Your task to perform on an android device: Clear the cart on bestbuy.com. Add "usb-c to usb-a" to the cart on bestbuy.com, then select checkout. Image 0: 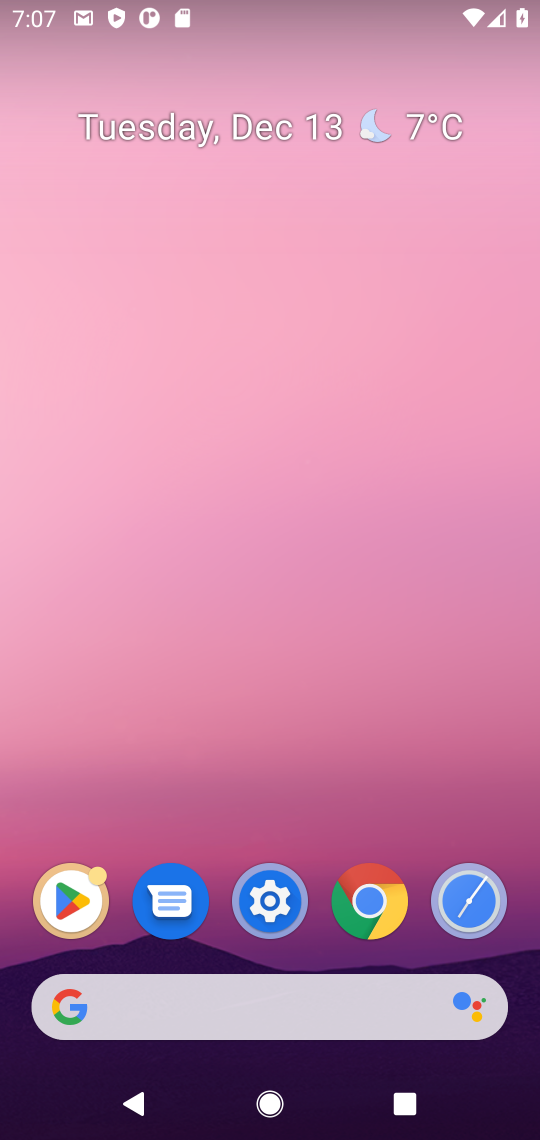
Step 0: click (386, 917)
Your task to perform on an android device: Clear the cart on bestbuy.com. Add "usb-c to usb-a" to the cart on bestbuy.com, then select checkout. Image 1: 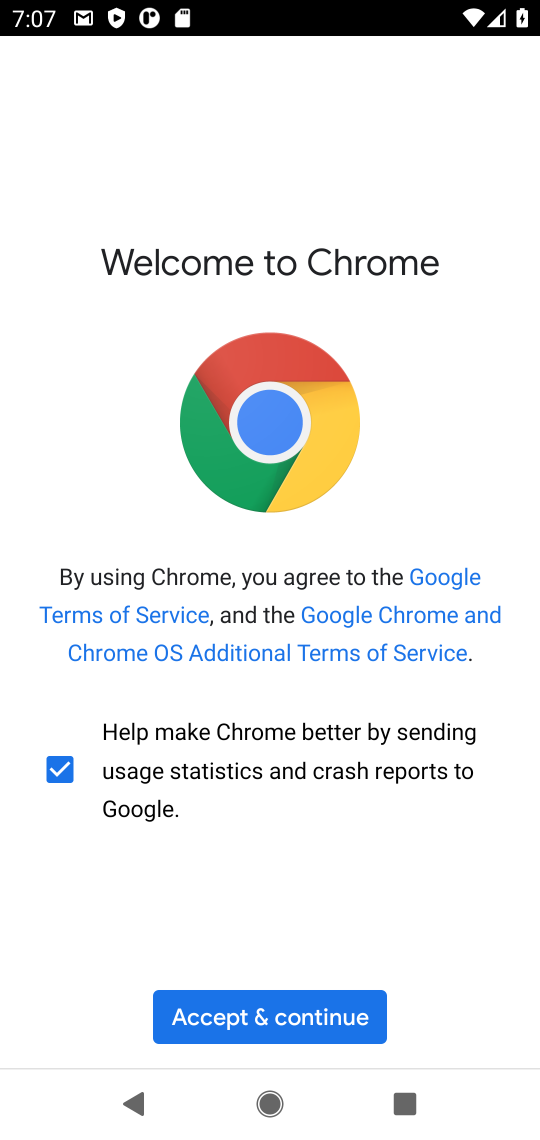
Step 1: click (245, 1004)
Your task to perform on an android device: Clear the cart on bestbuy.com. Add "usb-c to usb-a" to the cart on bestbuy.com, then select checkout. Image 2: 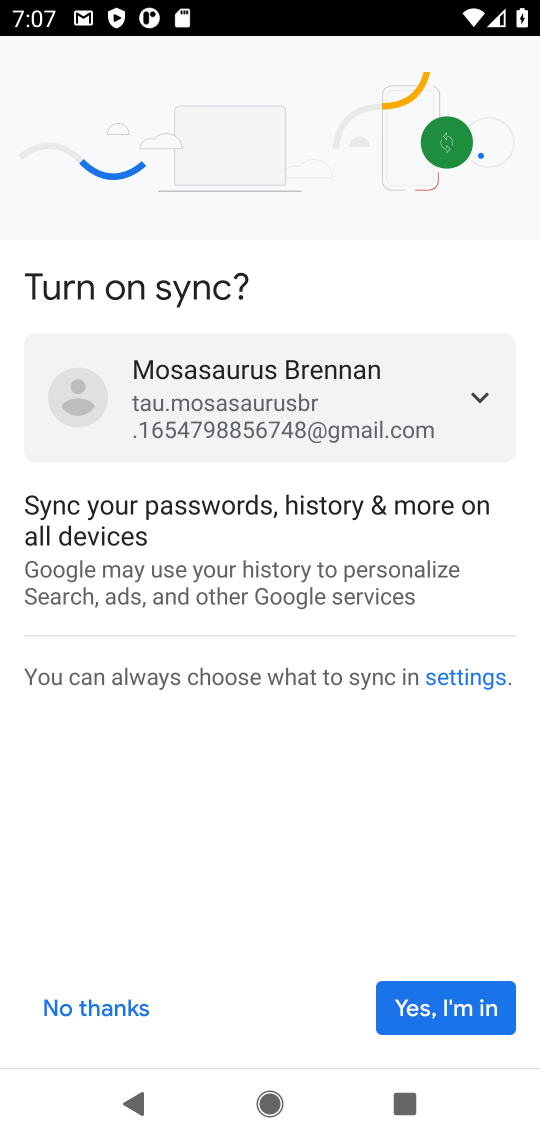
Step 2: click (399, 1003)
Your task to perform on an android device: Clear the cart on bestbuy.com. Add "usb-c to usb-a" to the cart on bestbuy.com, then select checkout. Image 3: 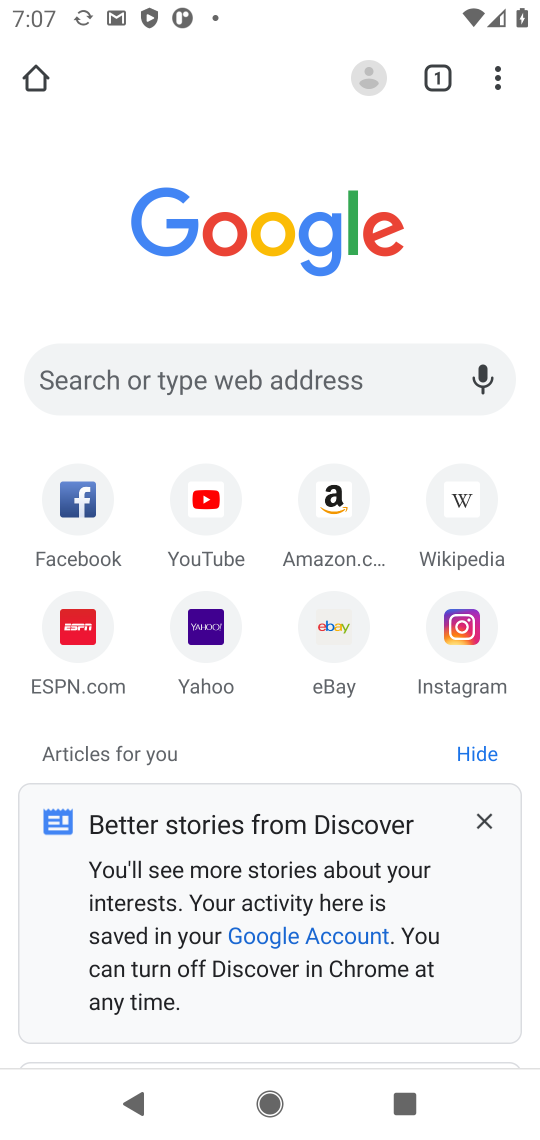
Step 3: click (295, 368)
Your task to perform on an android device: Clear the cart on bestbuy.com. Add "usb-c to usb-a" to the cart on bestbuy.com, then select checkout. Image 4: 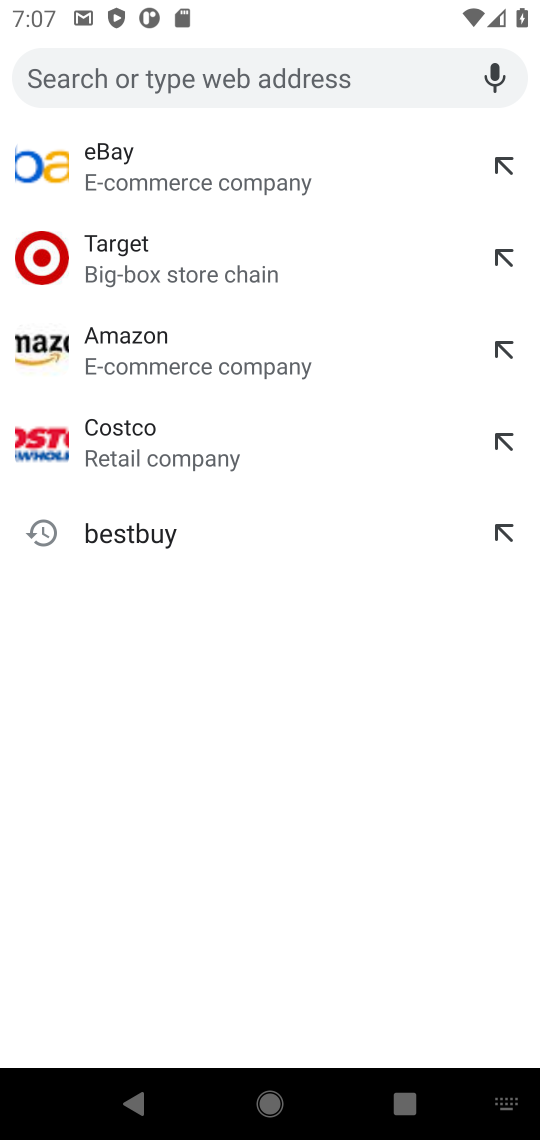
Step 4: type "best"
Your task to perform on an android device: Clear the cart on bestbuy.com. Add "usb-c to usb-a" to the cart on bestbuy.com, then select checkout. Image 5: 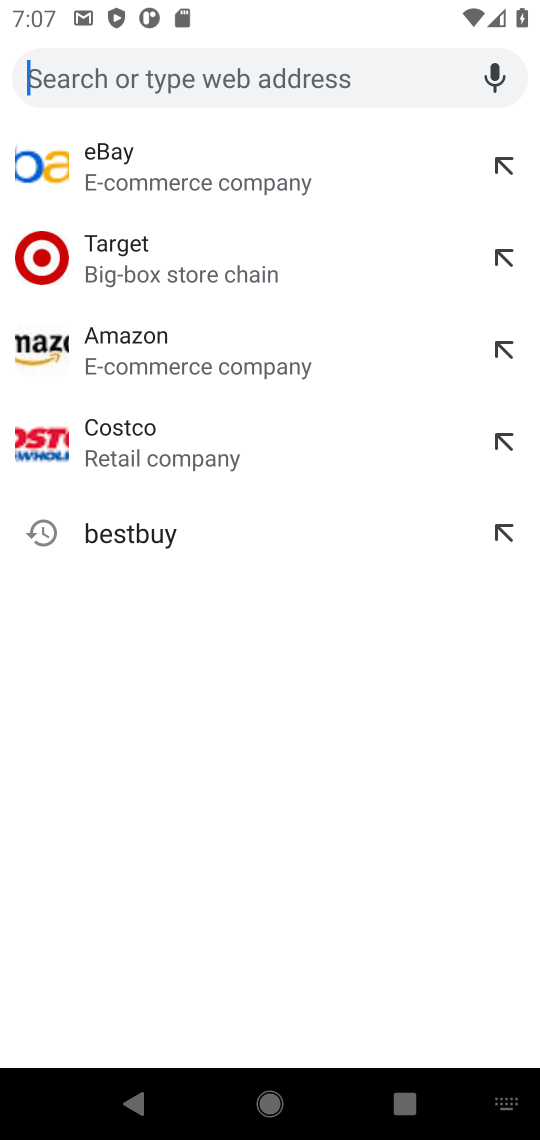
Step 5: click (124, 528)
Your task to perform on an android device: Clear the cart on bestbuy.com. Add "usb-c to usb-a" to the cart on bestbuy.com, then select checkout. Image 6: 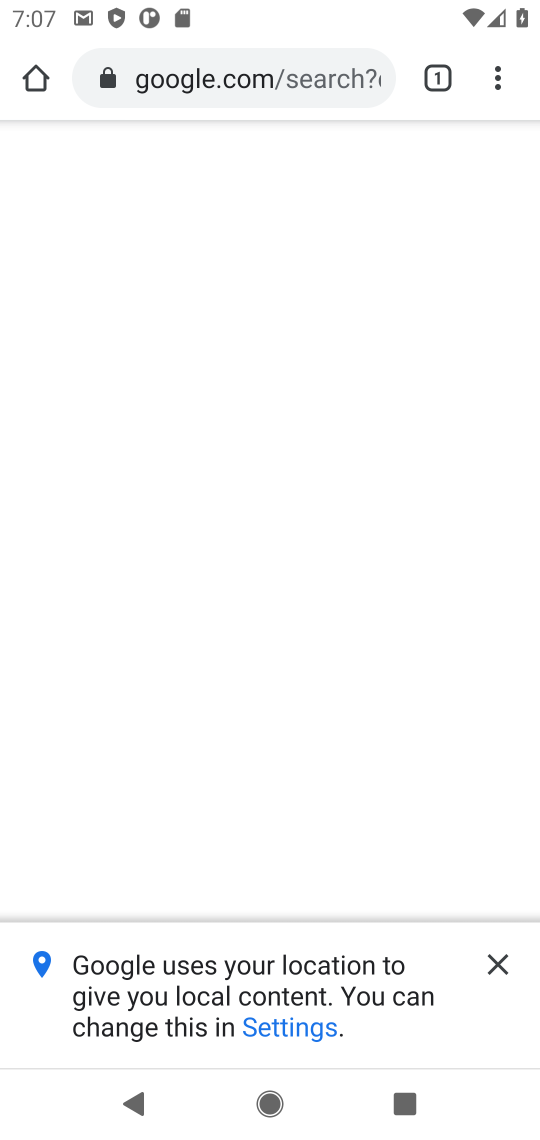
Step 6: click (495, 955)
Your task to perform on an android device: Clear the cart on bestbuy.com. Add "usb-c to usb-a" to the cart on bestbuy.com, then select checkout. Image 7: 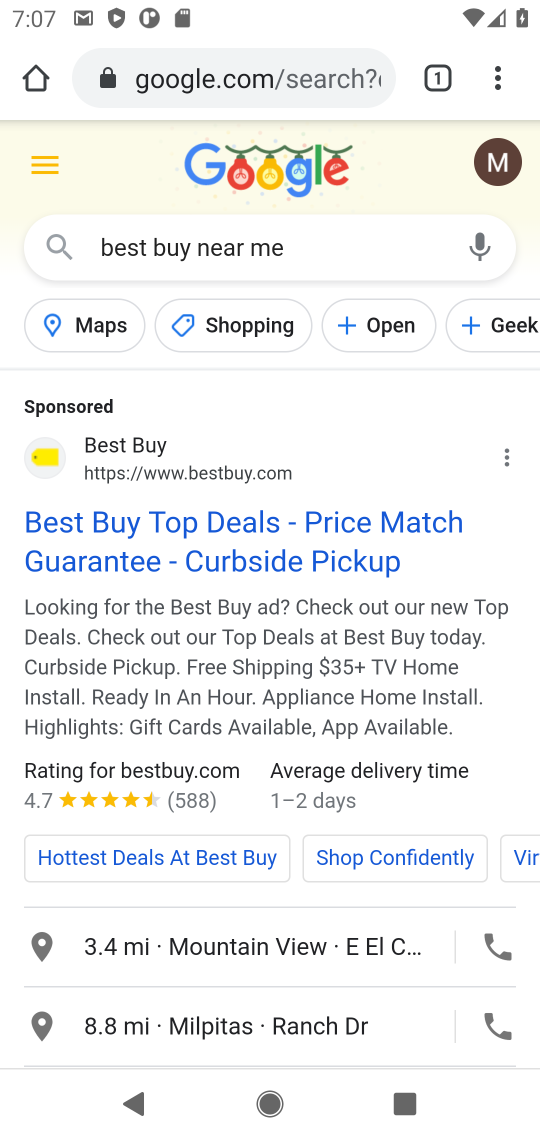
Step 7: drag from (321, 744) to (376, 218)
Your task to perform on an android device: Clear the cart on bestbuy.com. Add "usb-c to usb-a" to the cart on bestbuy.com, then select checkout. Image 8: 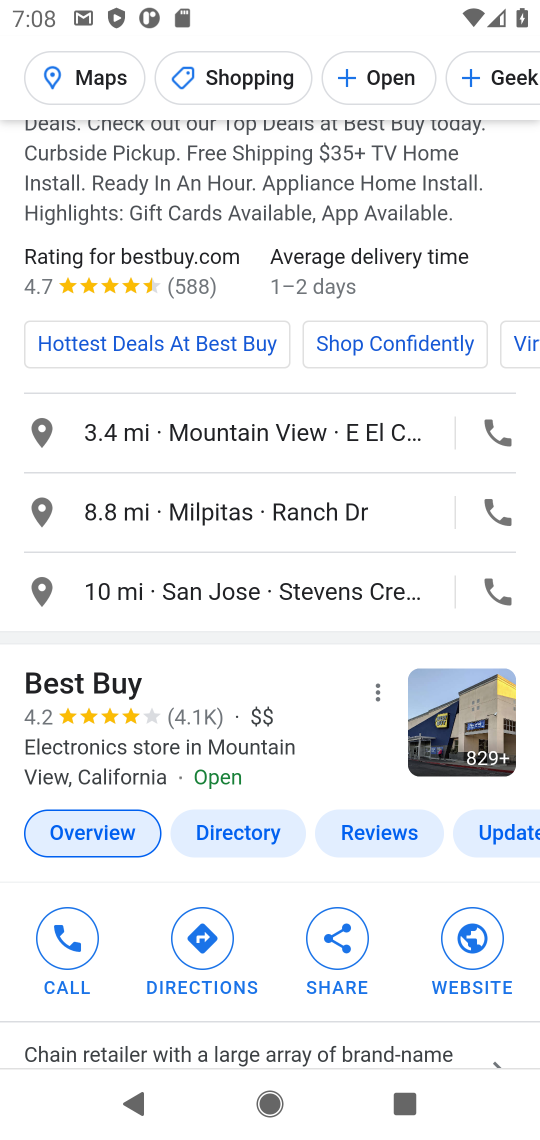
Step 8: drag from (144, 723) to (251, 232)
Your task to perform on an android device: Clear the cart on bestbuy.com. Add "usb-c to usb-a" to the cart on bestbuy.com, then select checkout. Image 9: 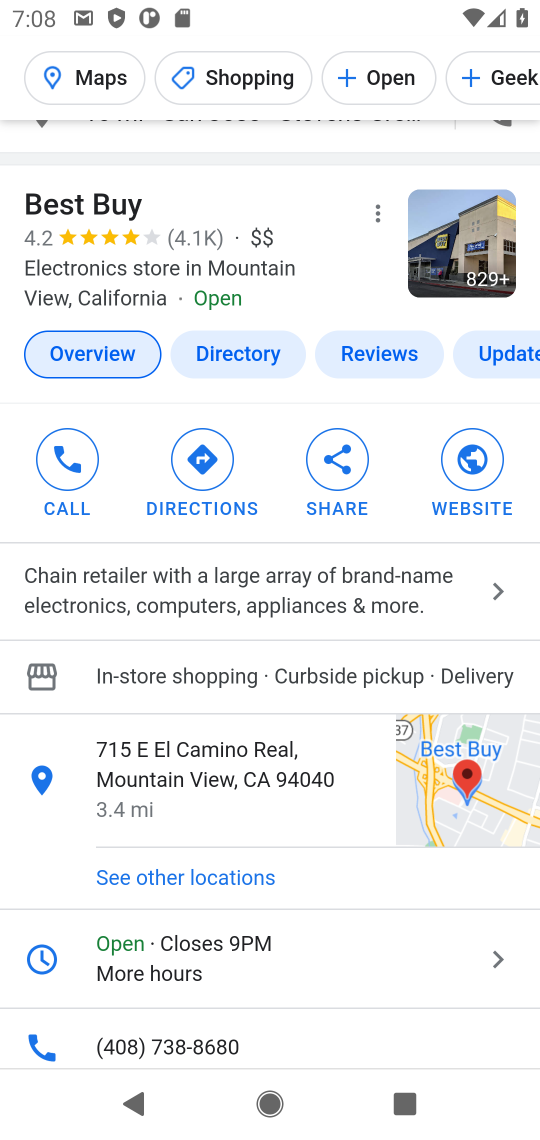
Step 9: drag from (182, 900) to (323, 34)
Your task to perform on an android device: Clear the cart on bestbuy.com. Add "usb-c to usb-a" to the cart on bestbuy.com, then select checkout. Image 10: 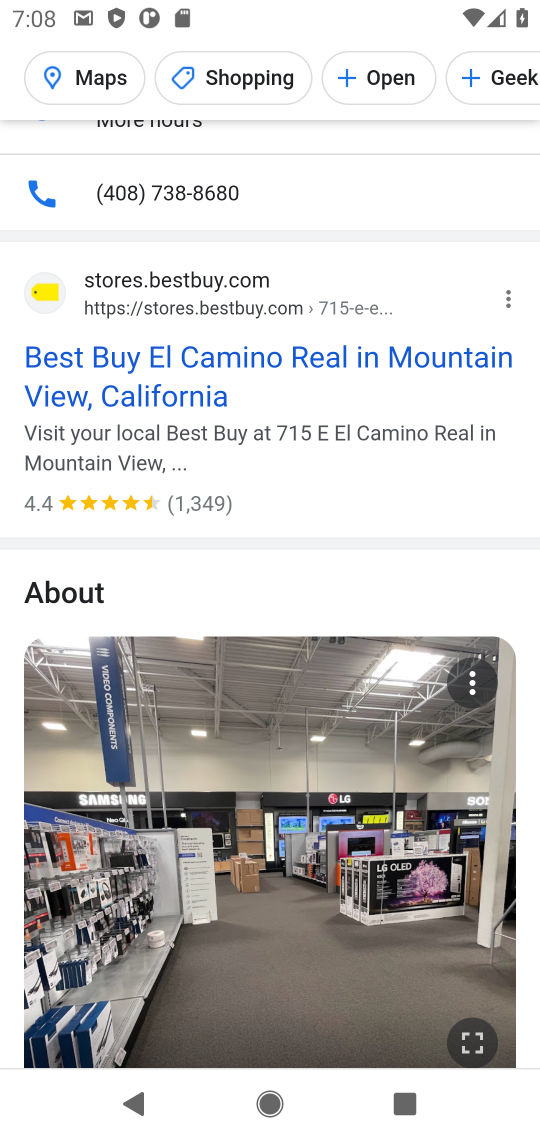
Step 10: drag from (246, 437) to (463, 74)
Your task to perform on an android device: Clear the cart on bestbuy.com. Add "usb-c to usb-a" to the cart on bestbuy.com, then select checkout. Image 11: 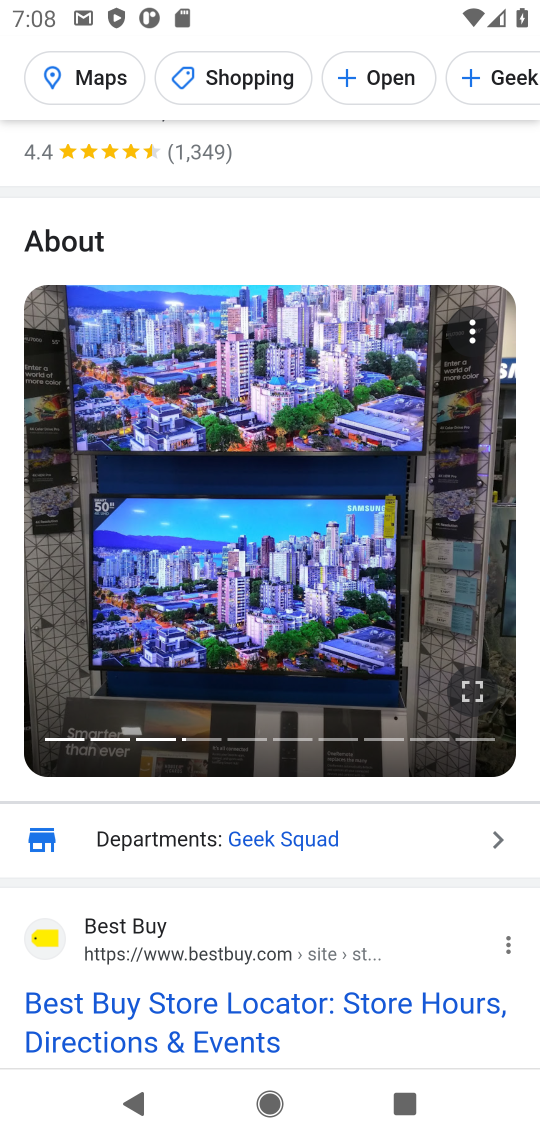
Step 11: click (219, 1016)
Your task to perform on an android device: Clear the cart on bestbuy.com. Add "usb-c to usb-a" to the cart on bestbuy.com, then select checkout. Image 12: 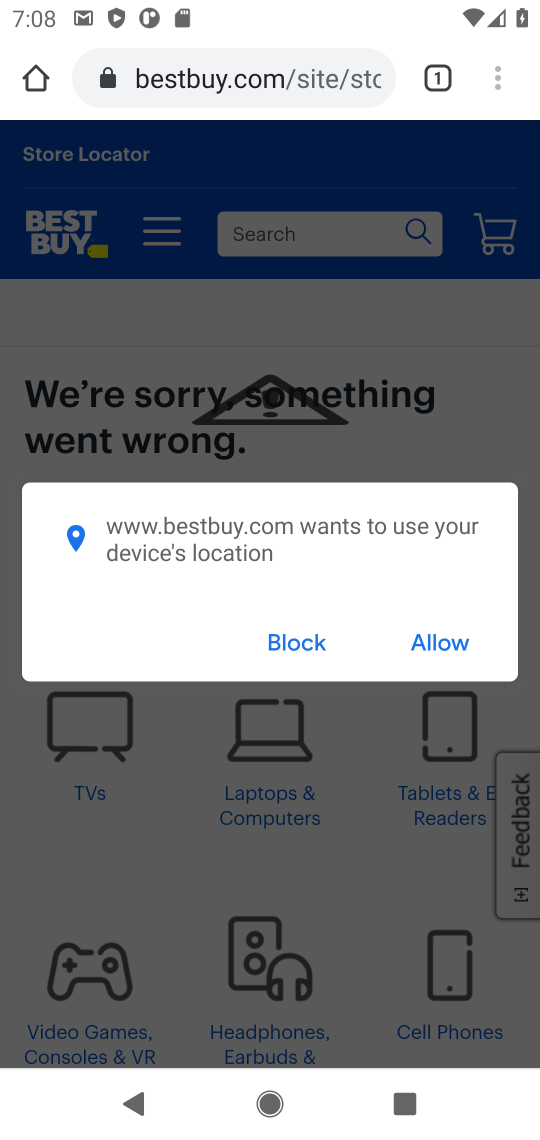
Step 12: click (289, 636)
Your task to perform on an android device: Clear the cart on bestbuy.com. Add "usb-c to usb-a" to the cart on bestbuy.com, then select checkout. Image 13: 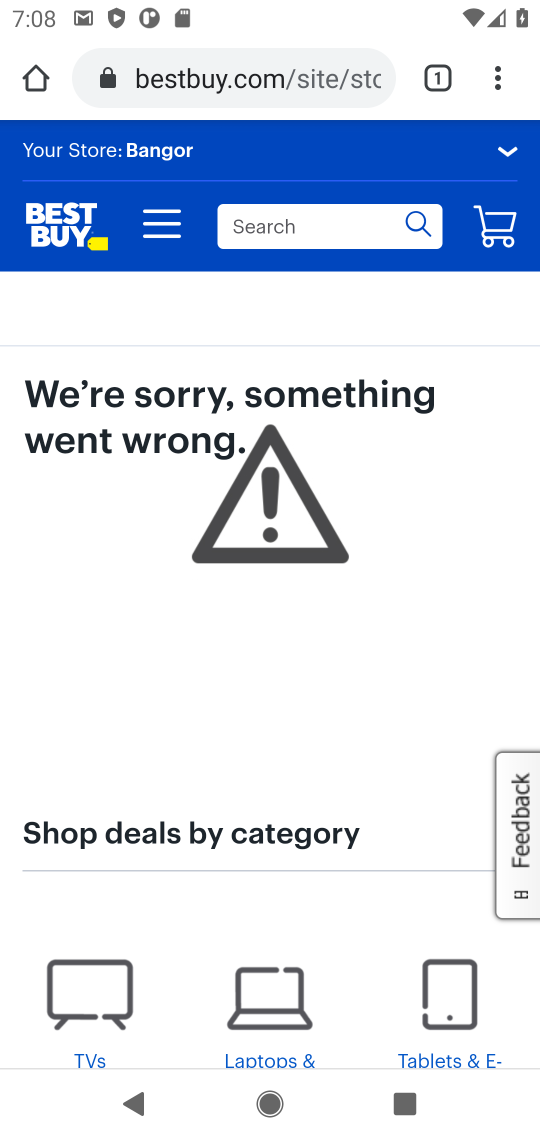
Step 13: click (504, 228)
Your task to perform on an android device: Clear the cart on bestbuy.com. Add "usb-c to usb-a" to the cart on bestbuy.com, then select checkout. Image 14: 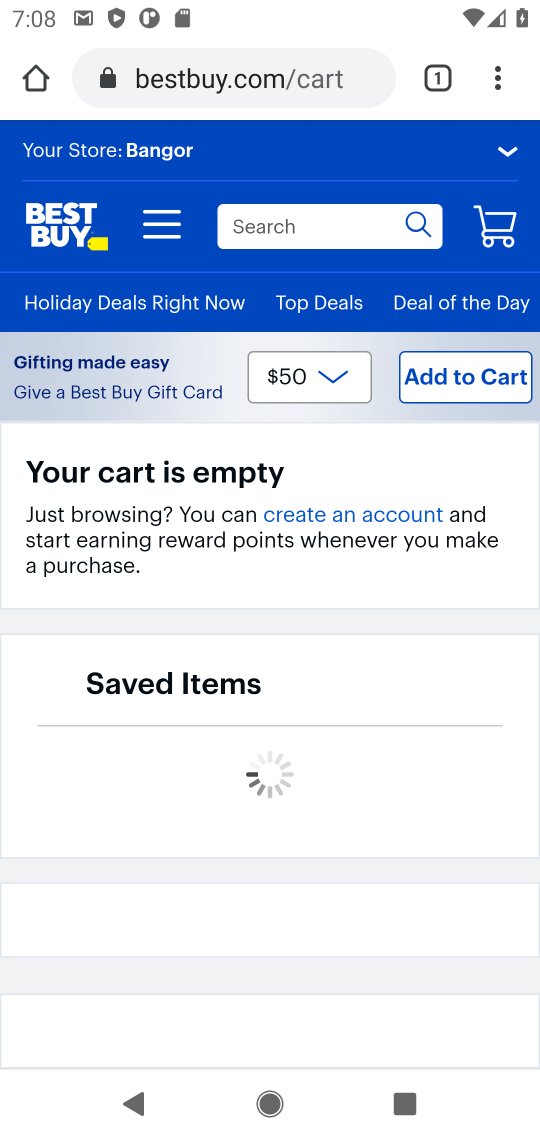
Step 14: click (290, 210)
Your task to perform on an android device: Clear the cart on bestbuy.com. Add "usb-c to usb-a" to the cart on bestbuy.com, then select checkout. Image 15: 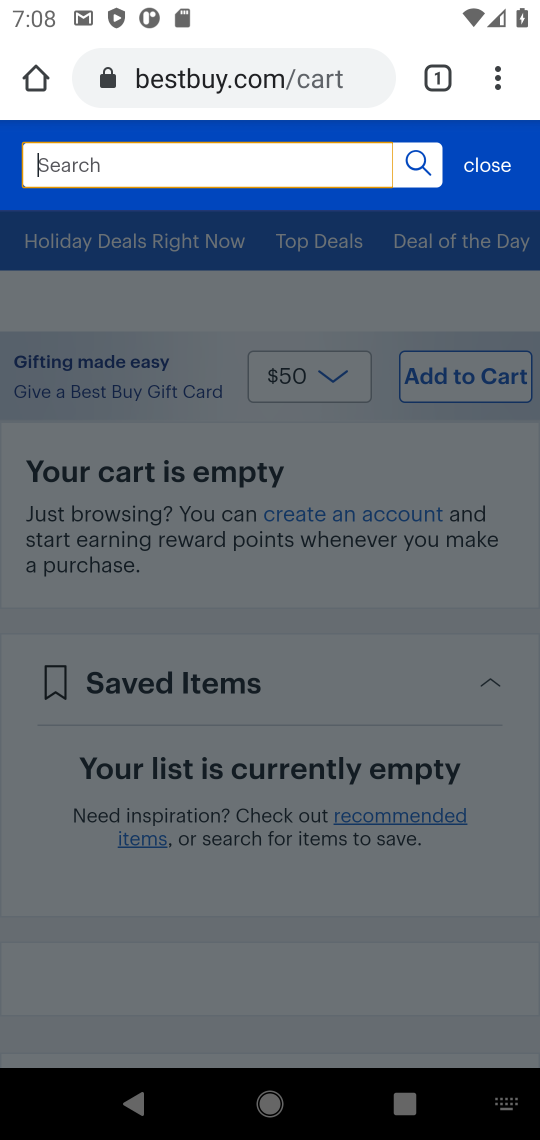
Step 15: type "usb-c to usb-a"
Your task to perform on an android device: Clear the cart on bestbuy.com. Add "usb-c to usb-a" to the cart on bestbuy.com, then select checkout. Image 16: 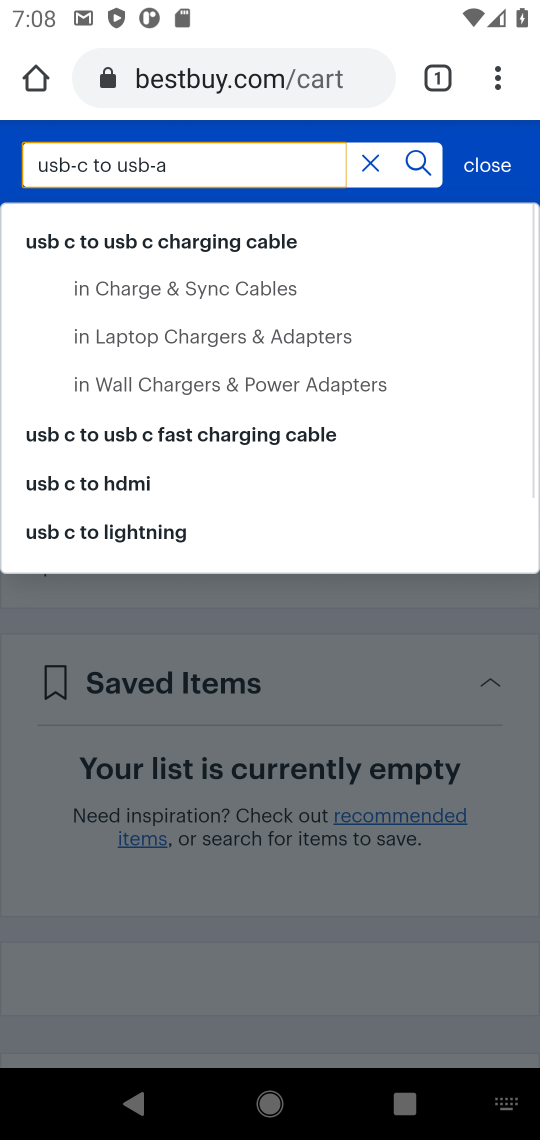
Step 16: click (417, 166)
Your task to perform on an android device: Clear the cart on bestbuy.com. Add "usb-c to usb-a" to the cart on bestbuy.com, then select checkout. Image 17: 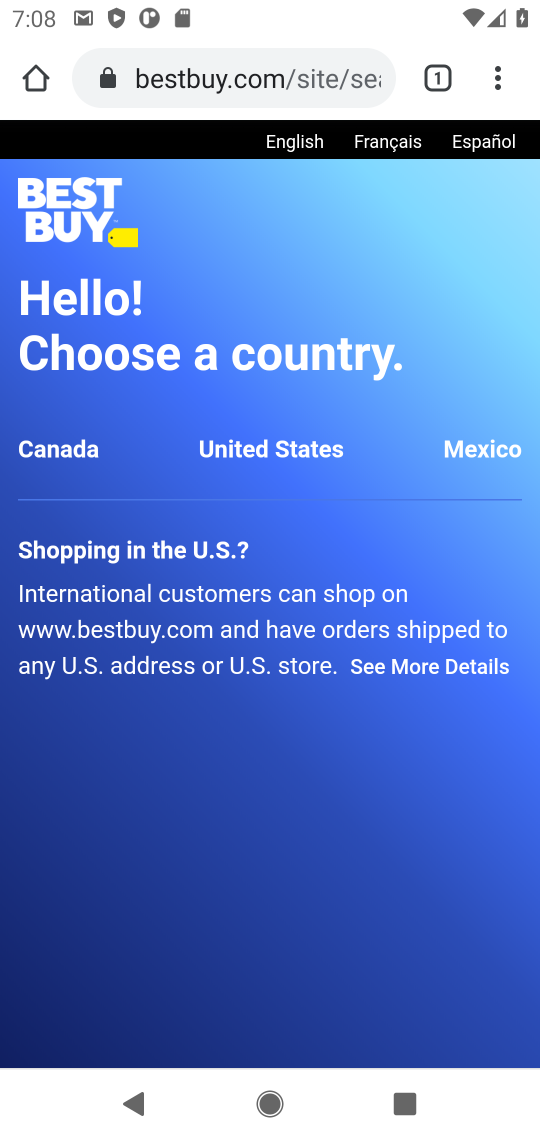
Step 17: click (141, 245)
Your task to perform on an android device: Clear the cart on bestbuy.com. Add "usb-c to usb-a" to the cart on bestbuy.com, then select checkout. Image 18: 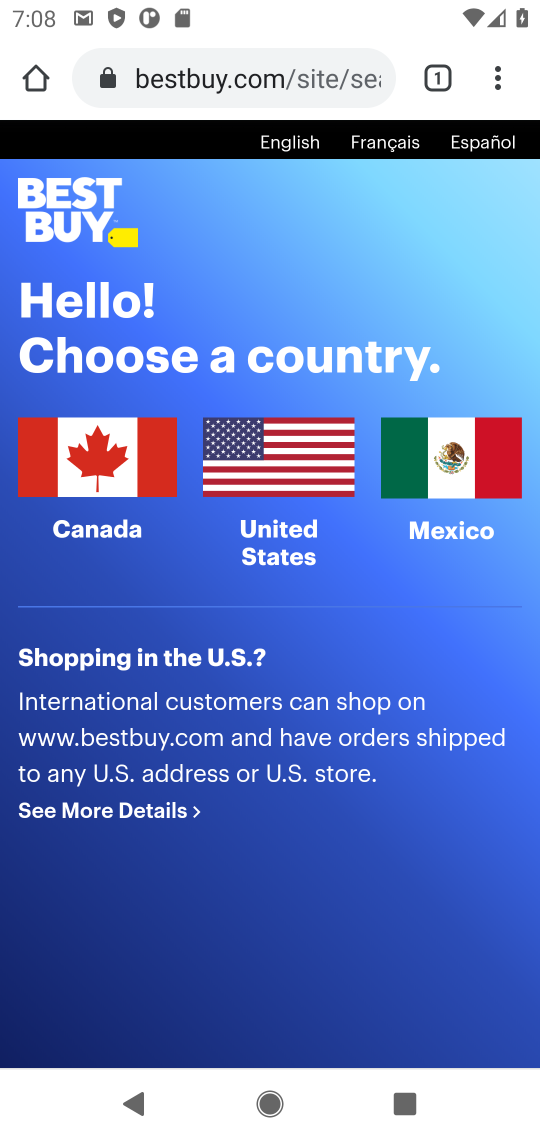
Step 18: click (236, 456)
Your task to perform on an android device: Clear the cart on bestbuy.com. Add "usb-c to usb-a" to the cart on bestbuy.com, then select checkout. Image 19: 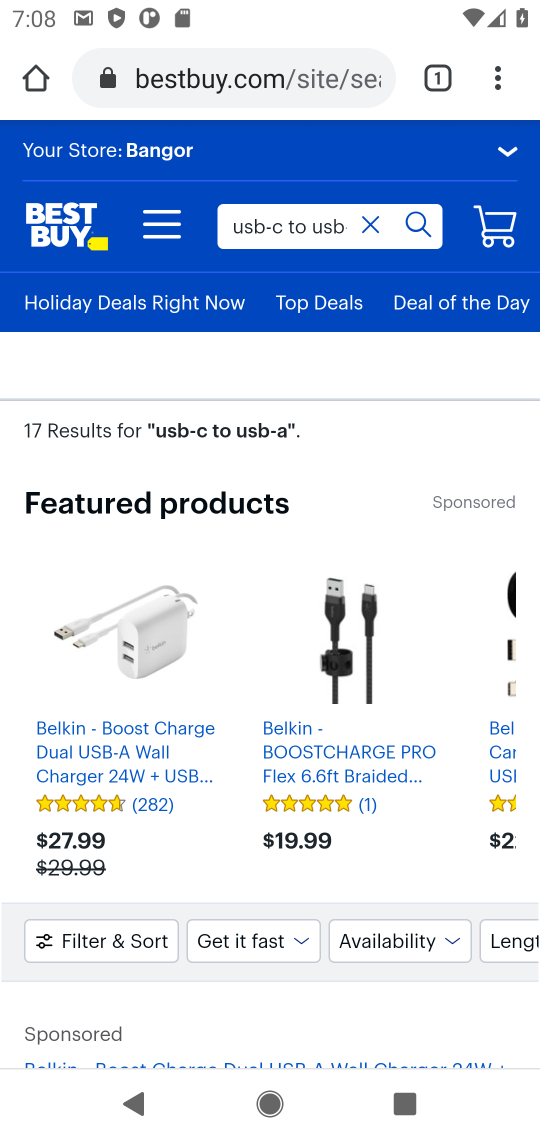
Step 19: drag from (192, 1013) to (352, 348)
Your task to perform on an android device: Clear the cart on bestbuy.com. Add "usb-c to usb-a" to the cart on bestbuy.com, then select checkout. Image 20: 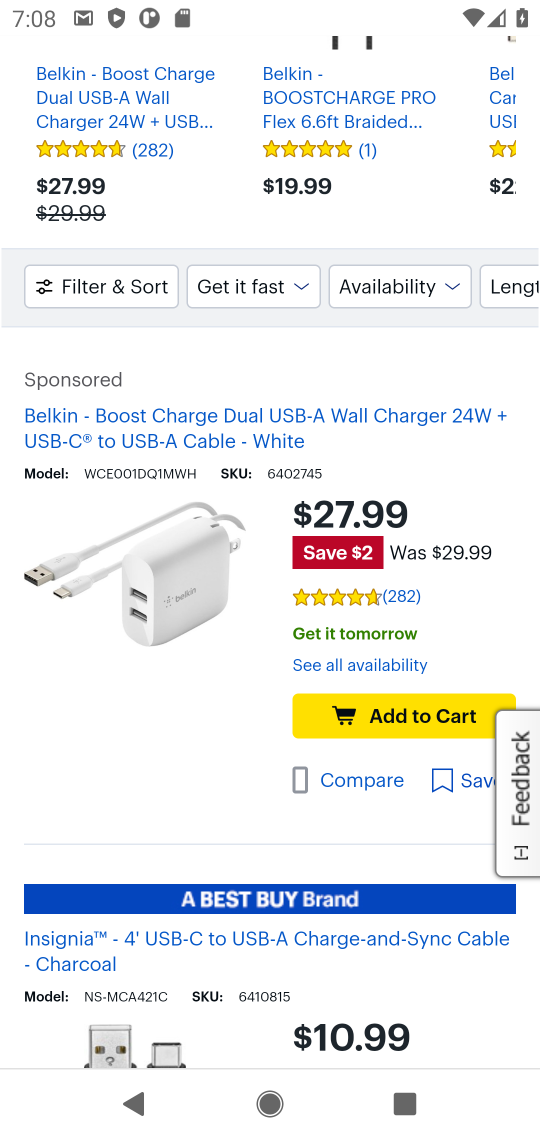
Step 20: click (368, 724)
Your task to perform on an android device: Clear the cart on bestbuy.com. Add "usb-c to usb-a" to the cart on bestbuy.com, then select checkout. Image 21: 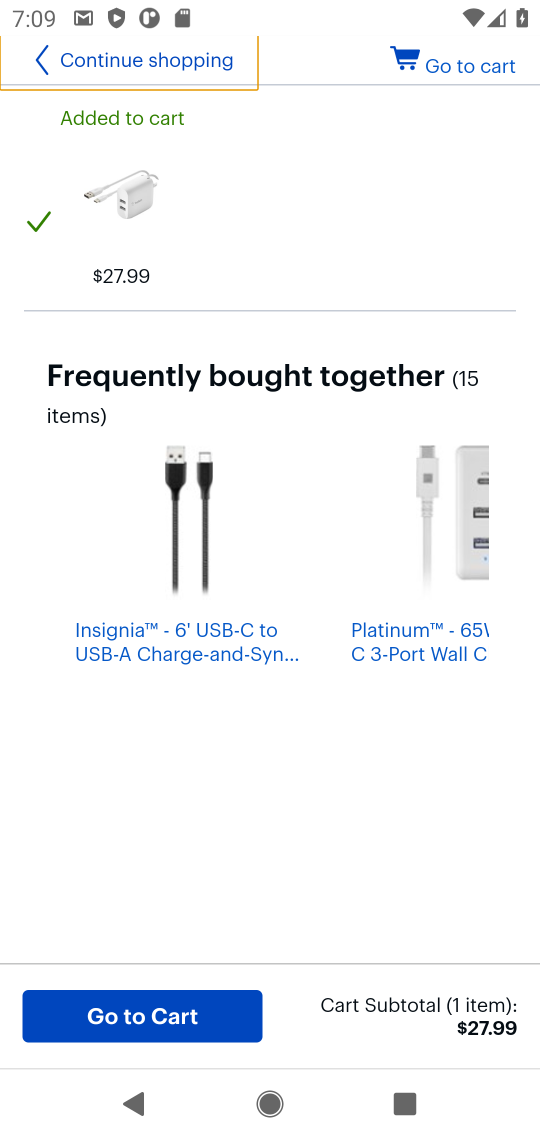
Step 21: click (472, 63)
Your task to perform on an android device: Clear the cart on bestbuy.com. Add "usb-c to usb-a" to the cart on bestbuy.com, then select checkout. Image 22: 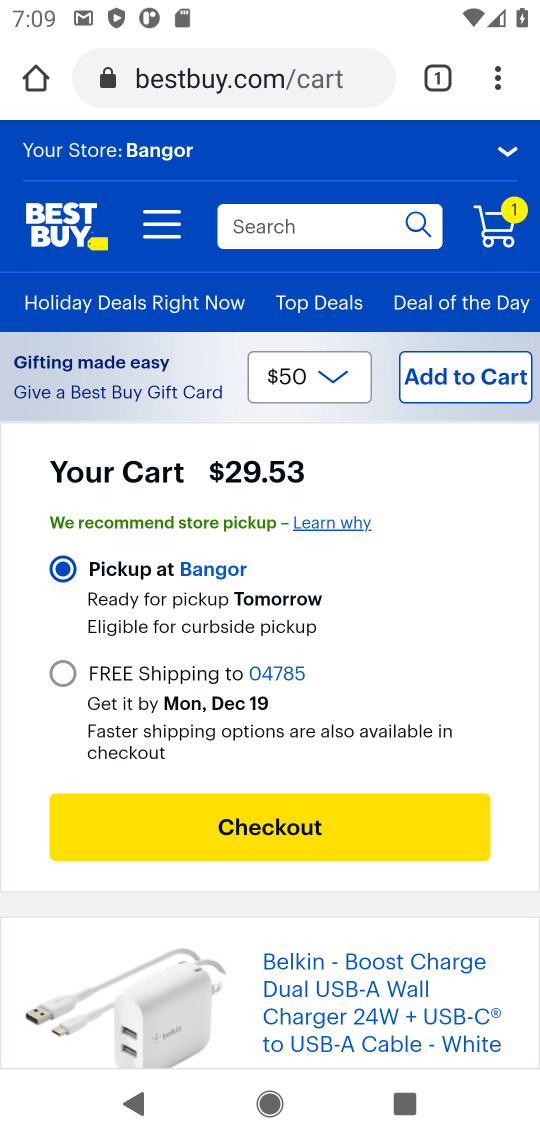
Step 22: click (254, 815)
Your task to perform on an android device: Clear the cart on bestbuy.com. Add "usb-c to usb-a" to the cart on bestbuy.com, then select checkout. Image 23: 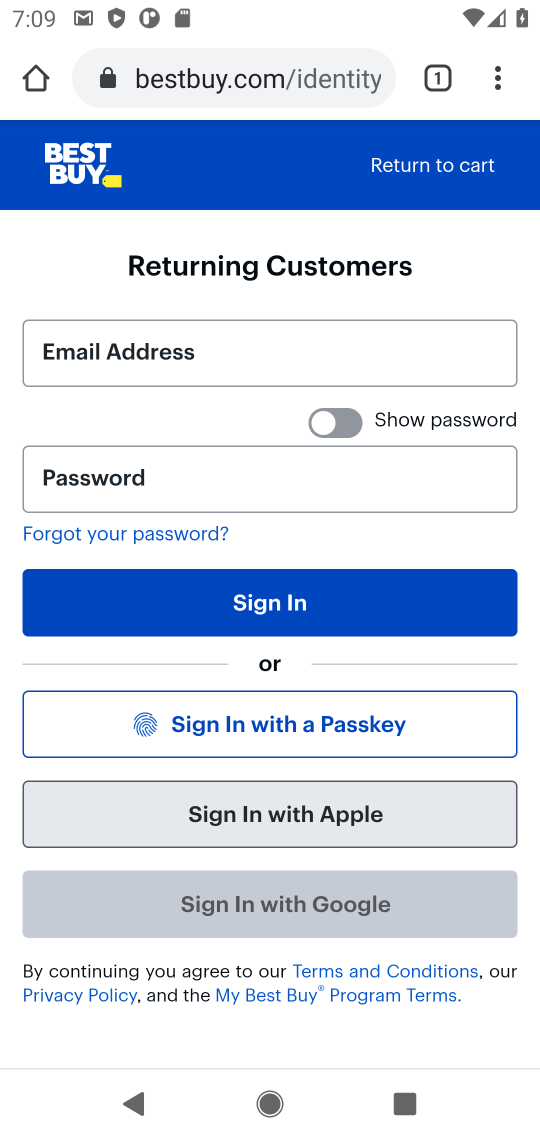
Step 23: task complete